Your task to perform on an android device: visit the assistant section in the google photos Image 0: 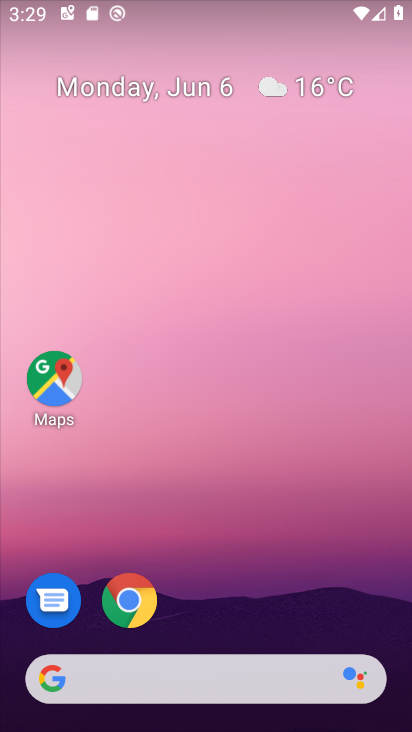
Step 0: press back button
Your task to perform on an android device: visit the assistant section in the google photos Image 1: 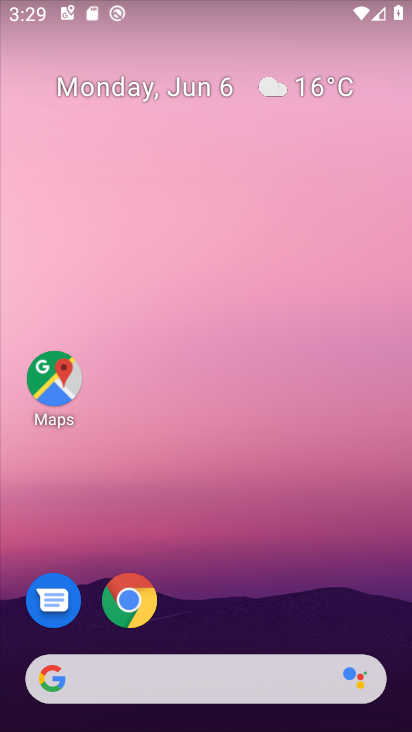
Step 1: click (140, 23)
Your task to perform on an android device: visit the assistant section in the google photos Image 2: 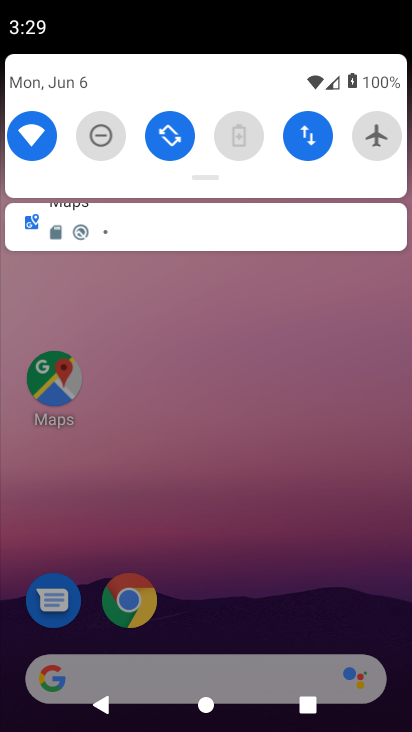
Step 2: drag from (267, 693) to (149, 12)
Your task to perform on an android device: visit the assistant section in the google photos Image 3: 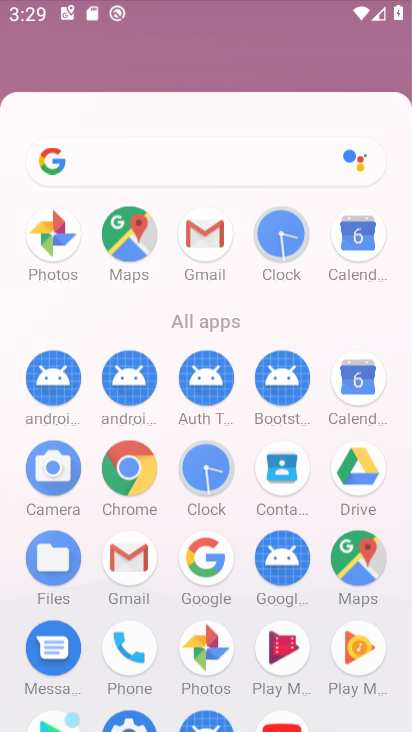
Step 3: drag from (242, 601) to (149, 48)
Your task to perform on an android device: visit the assistant section in the google photos Image 4: 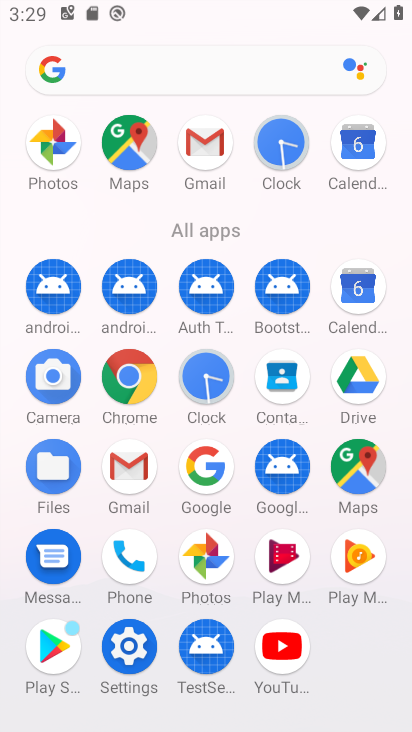
Step 4: click (205, 562)
Your task to perform on an android device: visit the assistant section in the google photos Image 5: 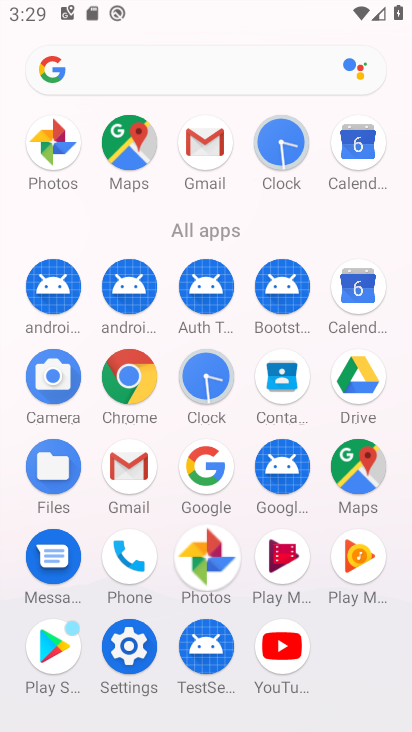
Step 5: click (202, 559)
Your task to perform on an android device: visit the assistant section in the google photos Image 6: 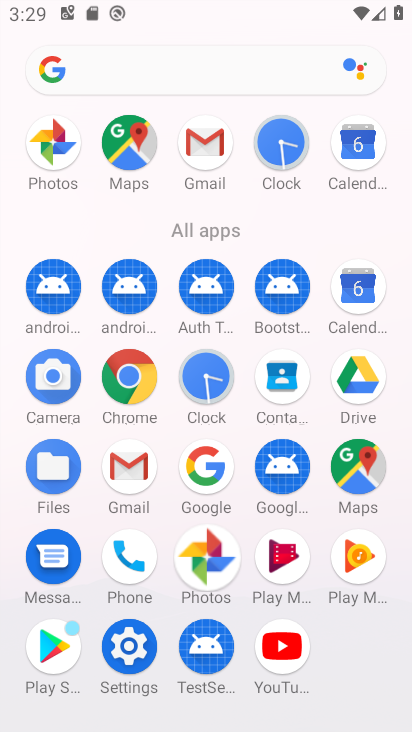
Step 6: click (202, 559)
Your task to perform on an android device: visit the assistant section in the google photos Image 7: 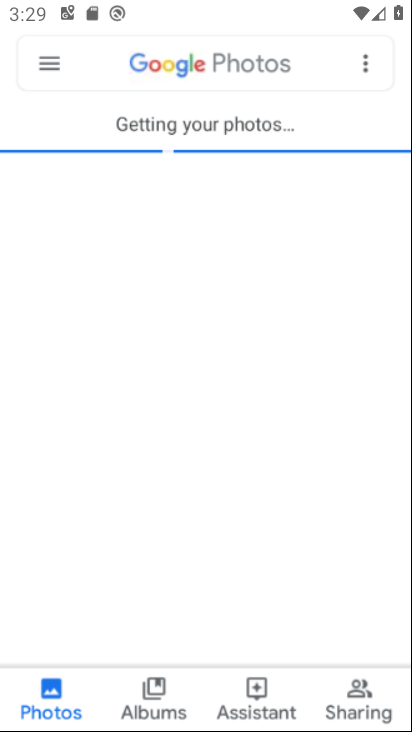
Step 7: click (202, 555)
Your task to perform on an android device: visit the assistant section in the google photos Image 8: 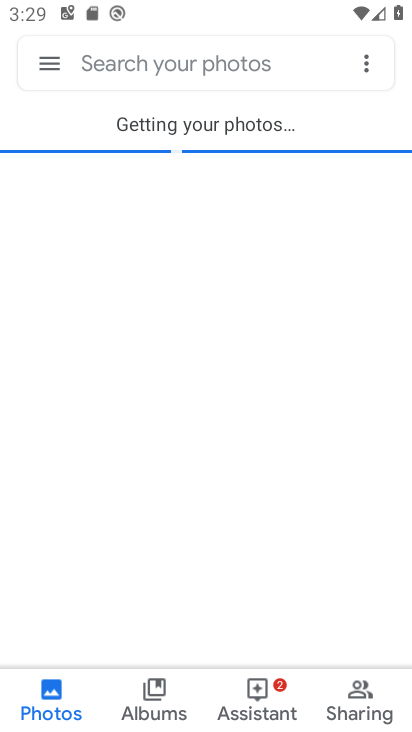
Step 8: click (267, 702)
Your task to perform on an android device: visit the assistant section in the google photos Image 9: 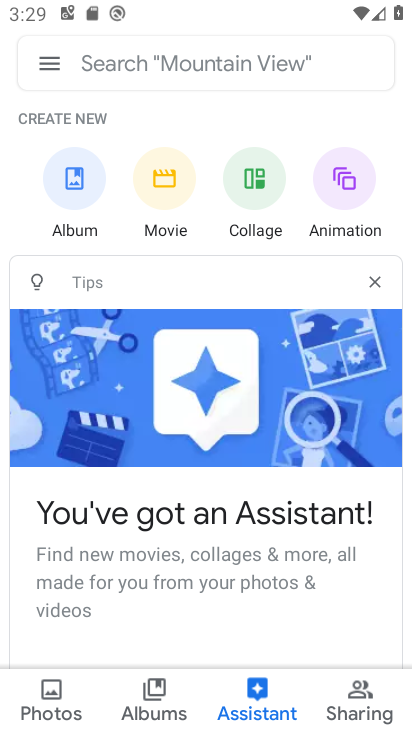
Step 9: task complete